Your task to perform on an android device: change the clock display to show seconds Image 0: 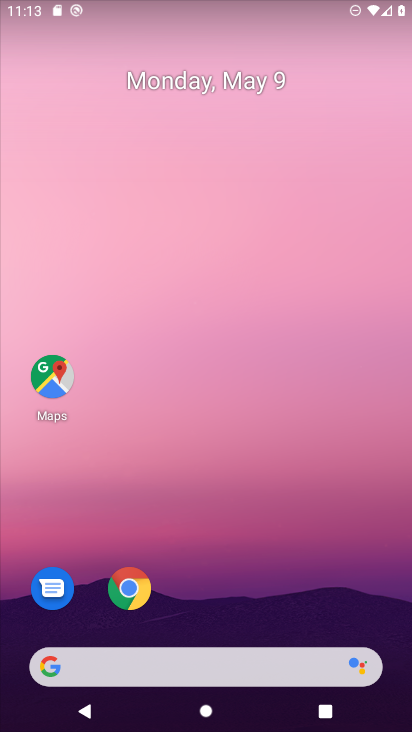
Step 0: drag from (346, 600) to (265, 164)
Your task to perform on an android device: change the clock display to show seconds Image 1: 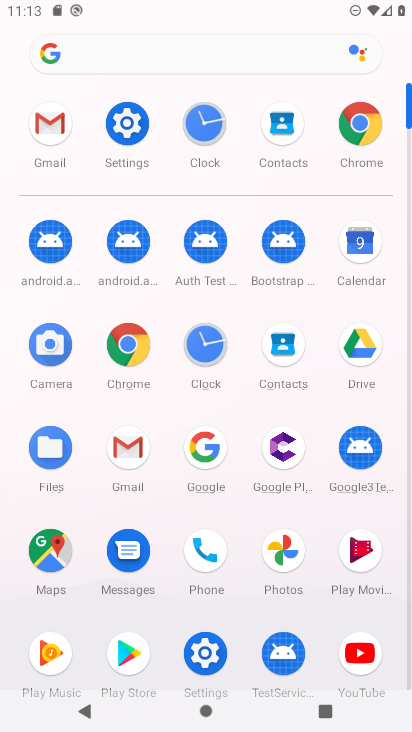
Step 1: click (210, 129)
Your task to perform on an android device: change the clock display to show seconds Image 2: 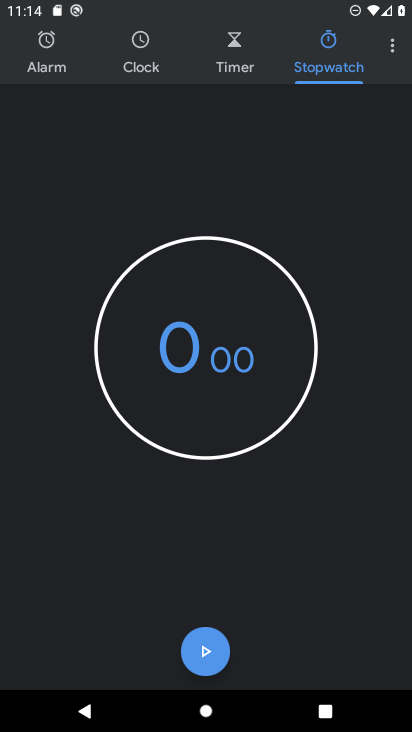
Step 2: click (382, 52)
Your task to perform on an android device: change the clock display to show seconds Image 3: 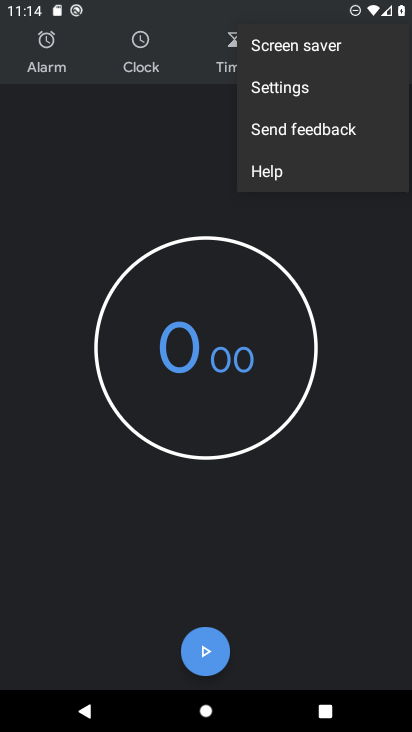
Step 3: click (314, 97)
Your task to perform on an android device: change the clock display to show seconds Image 4: 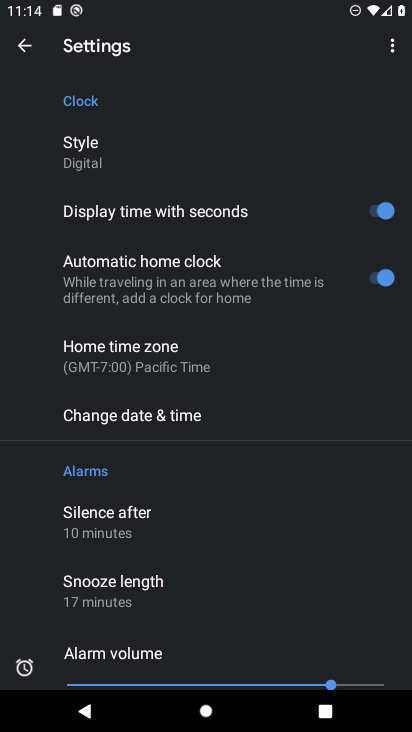
Step 4: click (205, 350)
Your task to perform on an android device: change the clock display to show seconds Image 5: 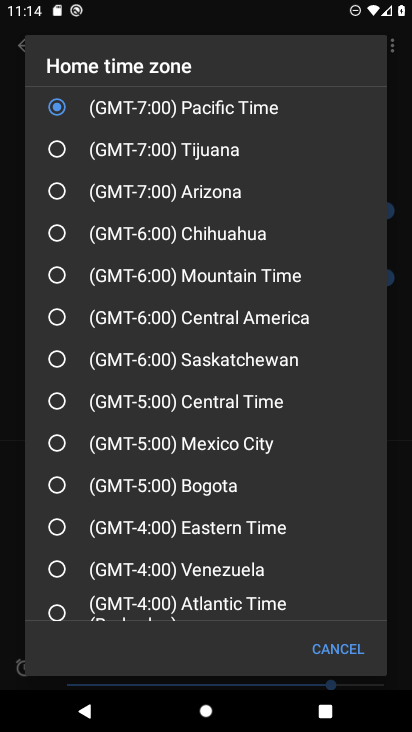
Step 5: click (209, 342)
Your task to perform on an android device: change the clock display to show seconds Image 6: 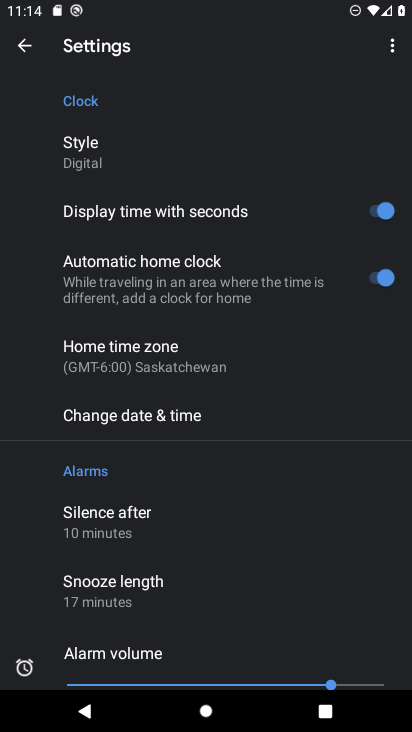
Step 6: click (205, 428)
Your task to perform on an android device: change the clock display to show seconds Image 7: 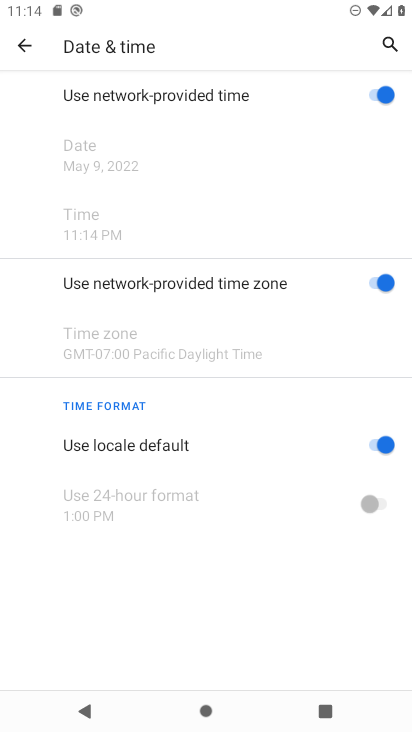
Step 7: task complete